Your task to perform on an android device: change text size in settings app Image 0: 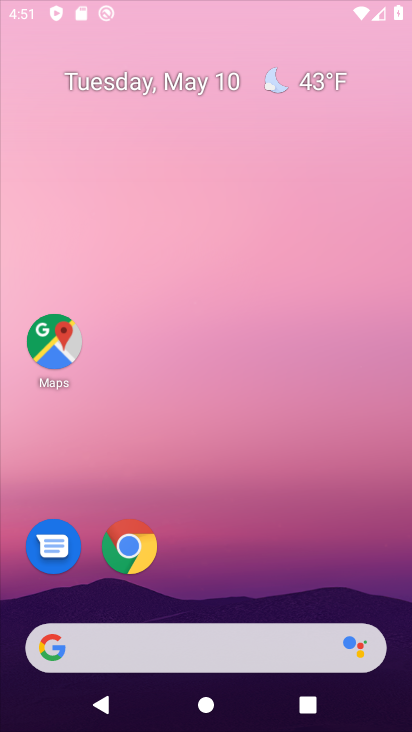
Step 0: click (153, 33)
Your task to perform on an android device: change text size in settings app Image 1: 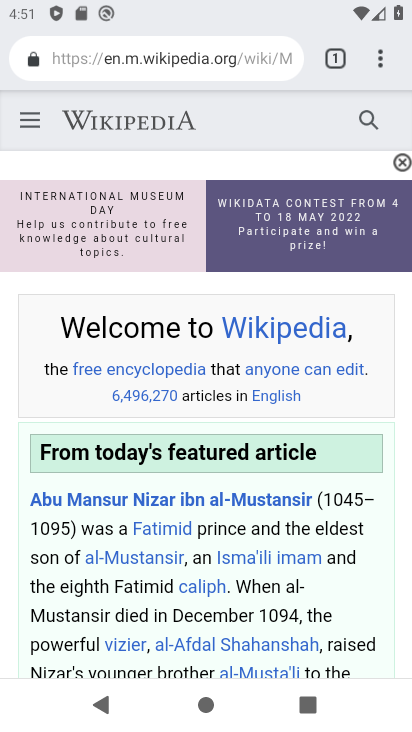
Step 1: press back button
Your task to perform on an android device: change text size in settings app Image 2: 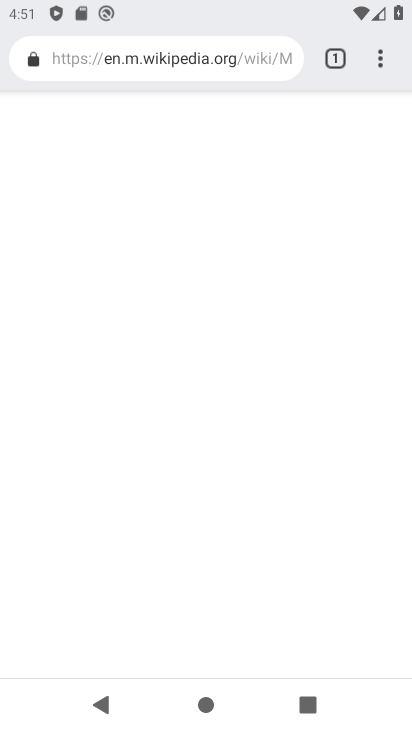
Step 2: press back button
Your task to perform on an android device: change text size in settings app Image 3: 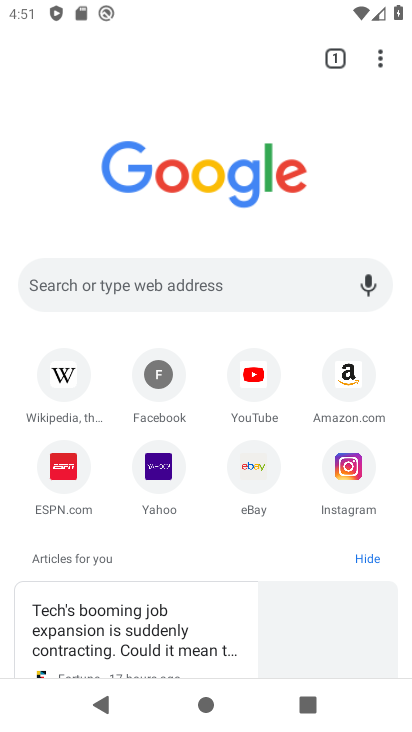
Step 3: press back button
Your task to perform on an android device: change text size in settings app Image 4: 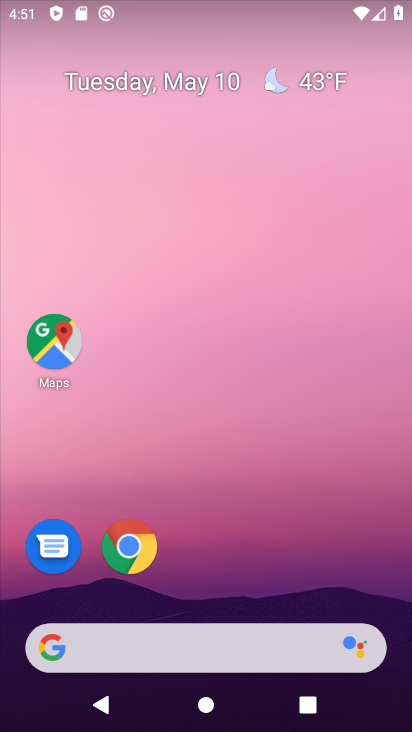
Step 4: drag from (247, 572) to (77, 182)
Your task to perform on an android device: change text size in settings app Image 5: 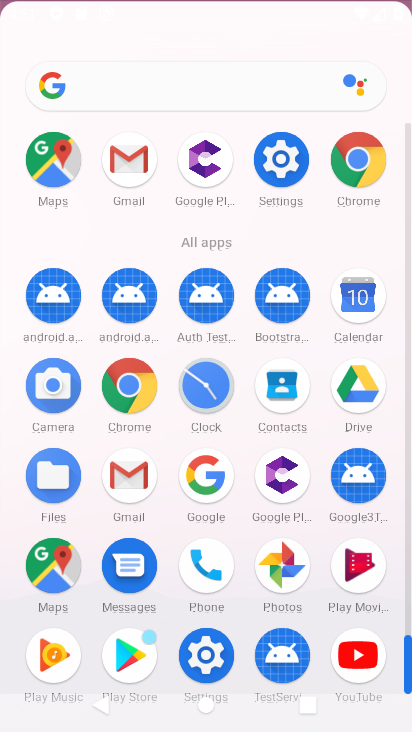
Step 5: drag from (299, 470) to (200, 35)
Your task to perform on an android device: change text size in settings app Image 6: 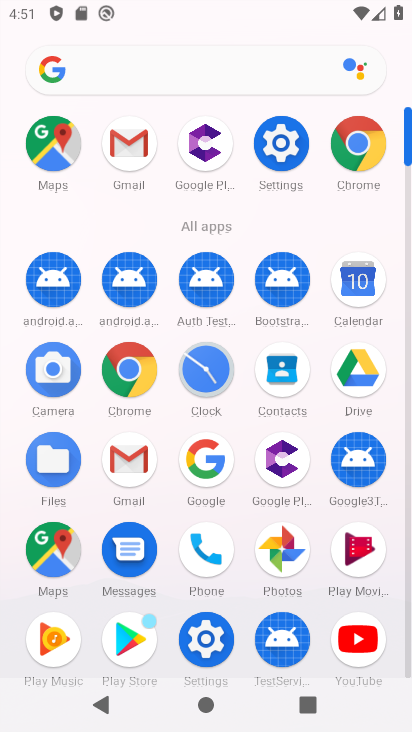
Step 6: click (287, 148)
Your task to perform on an android device: change text size in settings app Image 7: 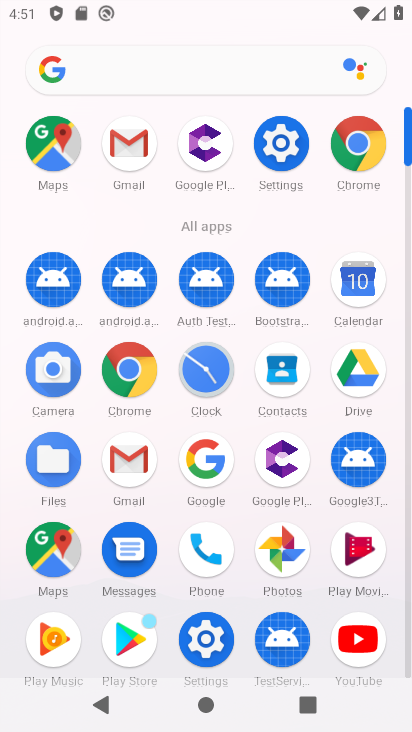
Step 7: click (287, 148)
Your task to perform on an android device: change text size in settings app Image 8: 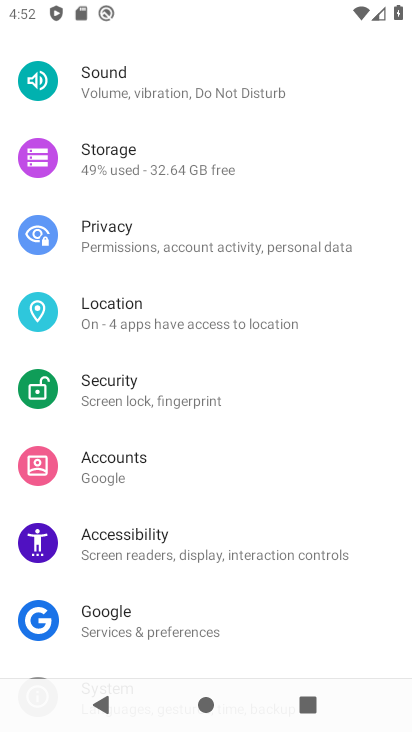
Step 8: drag from (131, 204) to (179, 507)
Your task to perform on an android device: change text size in settings app Image 9: 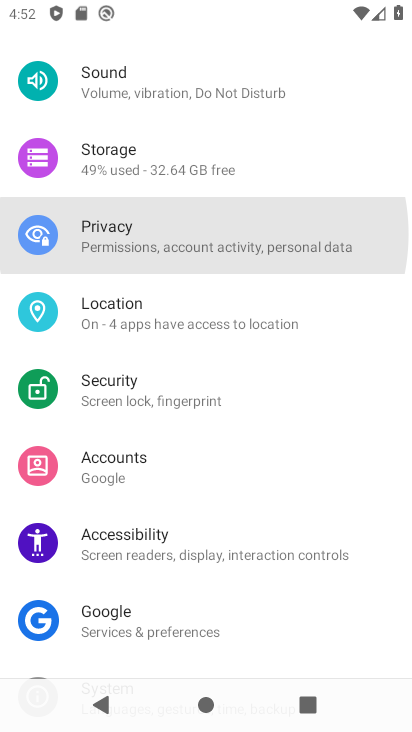
Step 9: drag from (162, 256) to (193, 457)
Your task to perform on an android device: change text size in settings app Image 10: 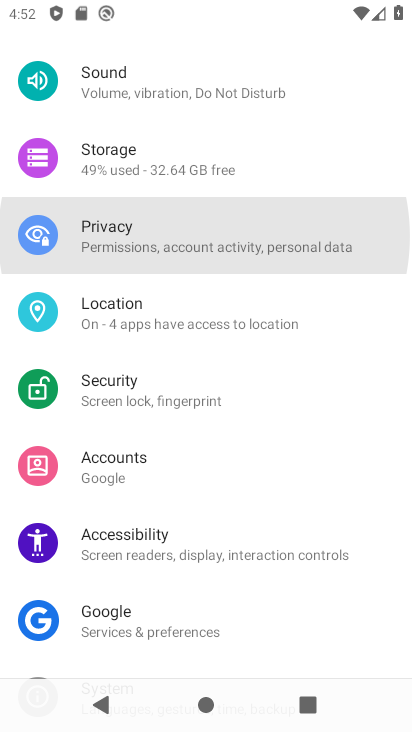
Step 10: drag from (134, 380) to (143, 438)
Your task to perform on an android device: change text size in settings app Image 11: 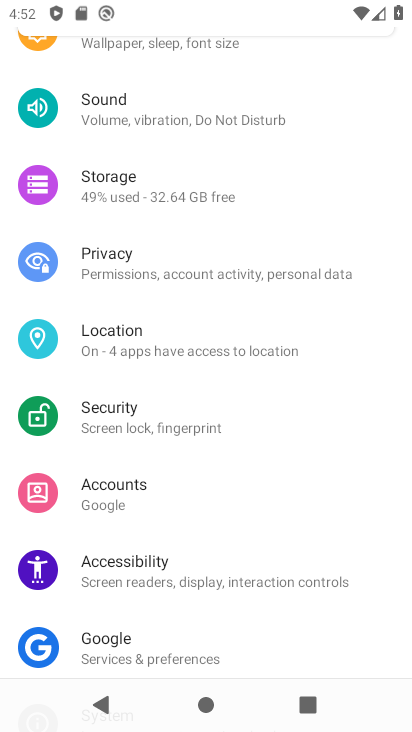
Step 11: drag from (150, 493) to (155, 164)
Your task to perform on an android device: change text size in settings app Image 12: 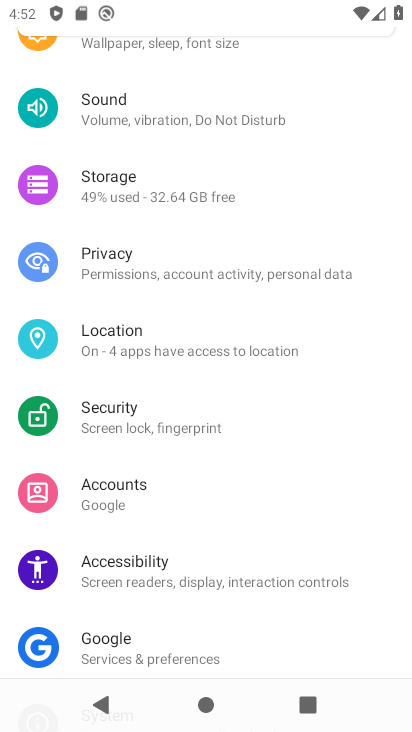
Step 12: drag from (139, 435) to (186, 126)
Your task to perform on an android device: change text size in settings app Image 13: 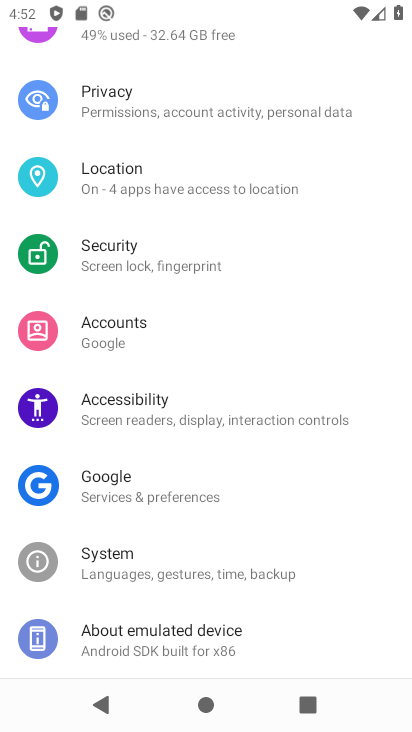
Step 13: drag from (150, 578) to (164, 646)
Your task to perform on an android device: change text size in settings app Image 14: 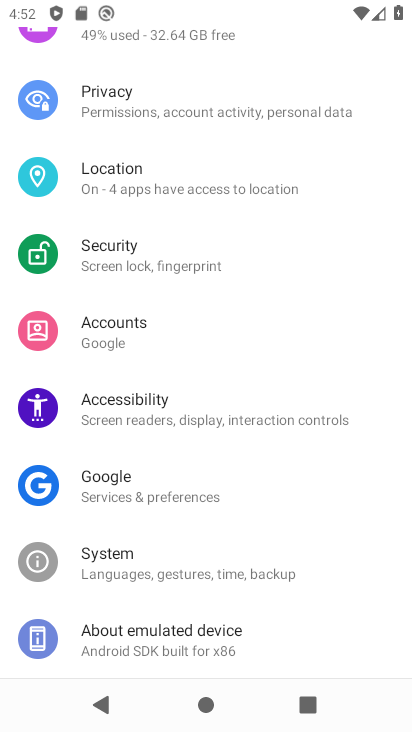
Step 14: drag from (111, 275) to (129, 586)
Your task to perform on an android device: change text size in settings app Image 15: 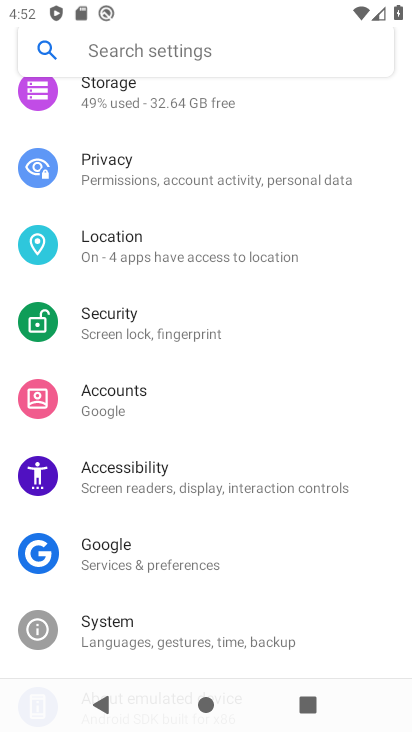
Step 15: drag from (58, 290) to (125, 637)
Your task to perform on an android device: change text size in settings app Image 16: 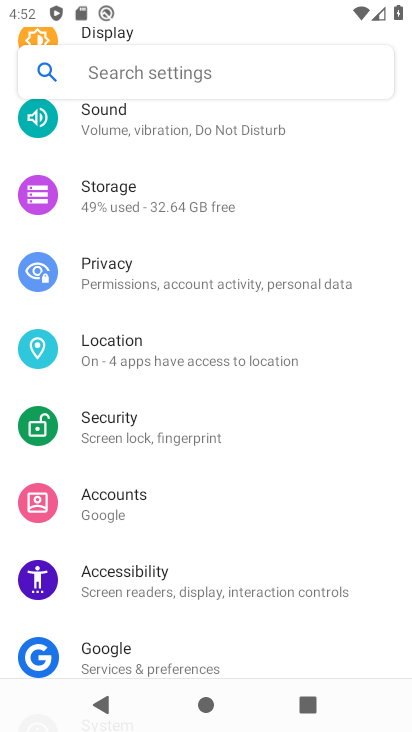
Step 16: drag from (133, 281) to (168, 525)
Your task to perform on an android device: change text size in settings app Image 17: 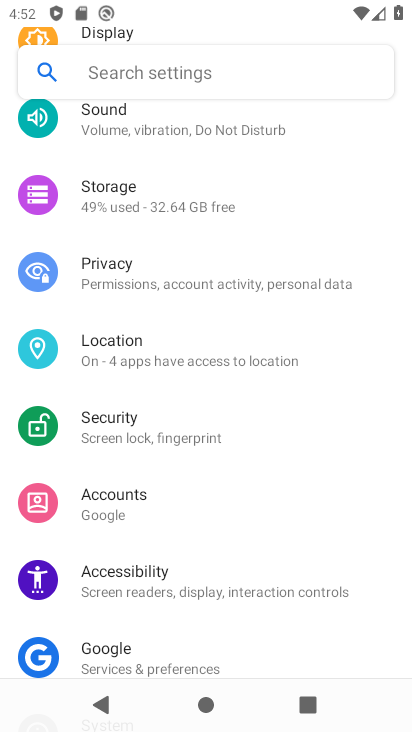
Step 17: drag from (175, 269) to (219, 529)
Your task to perform on an android device: change text size in settings app Image 18: 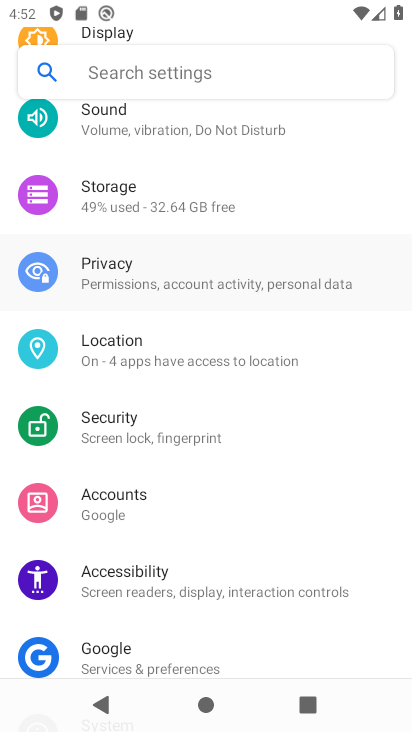
Step 18: drag from (217, 391) to (239, 537)
Your task to perform on an android device: change text size in settings app Image 19: 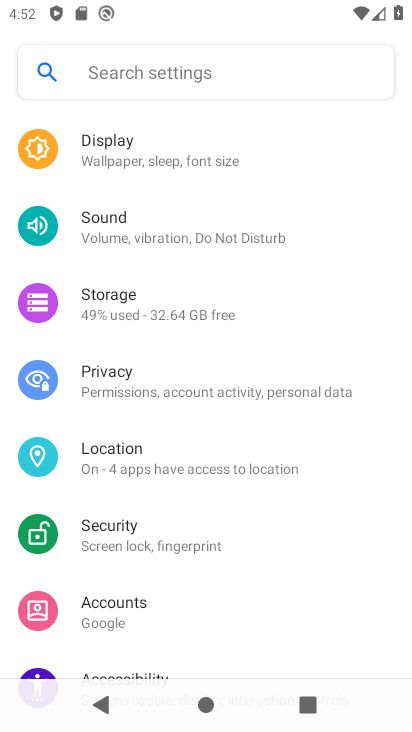
Step 19: click (132, 158)
Your task to perform on an android device: change text size in settings app Image 20: 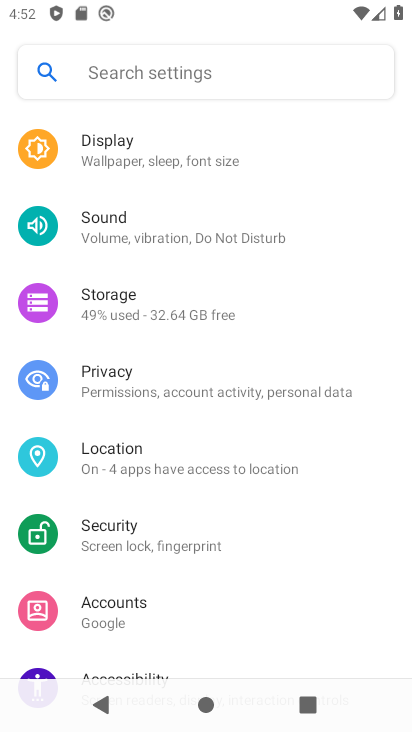
Step 20: click (131, 157)
Your task to perform on an android device: change text size in settings app Image 21: 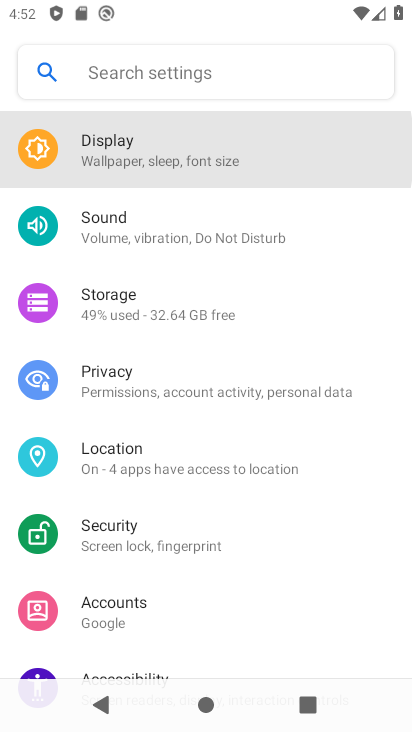
Step 21: click (131, 157)
Your task to perform on an android device: change text size in settings app Image 22: 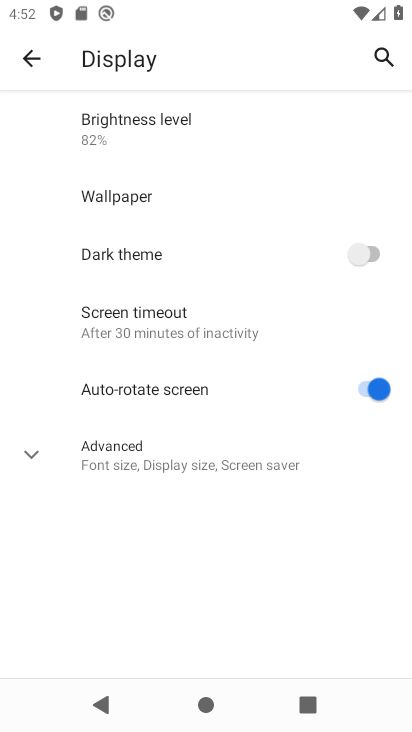
Step 22: click (133, 161)
Your task to perform on an android device: change text size in settings app Image 23: 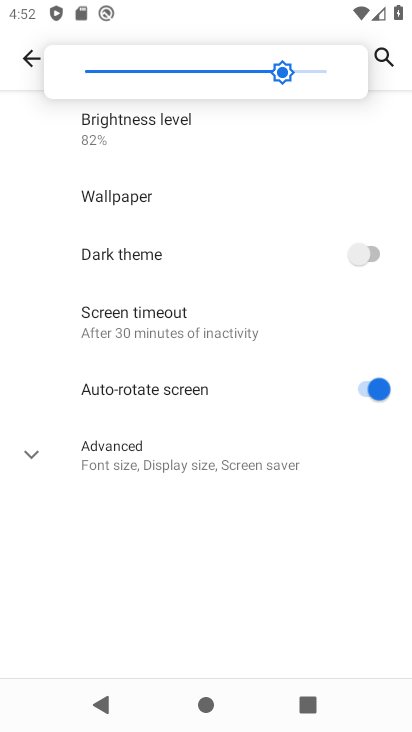
Step 23: click (138, 465)
Your task to perform on an android device: change text size in settings app Image 24: 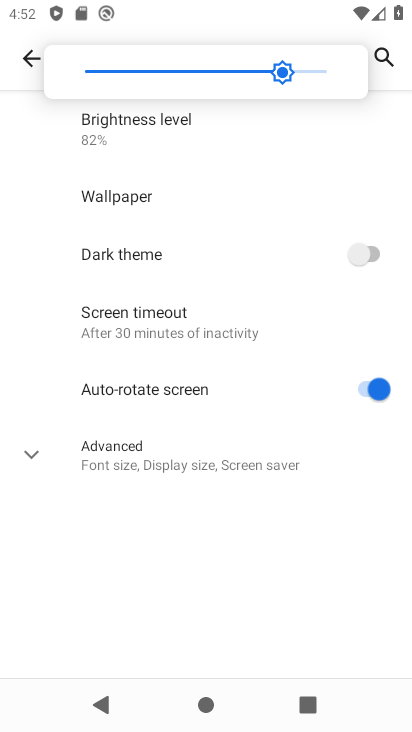
Step 24: click (138, 467)
Your task to perform on an android device: change text size in settings app Image 25: 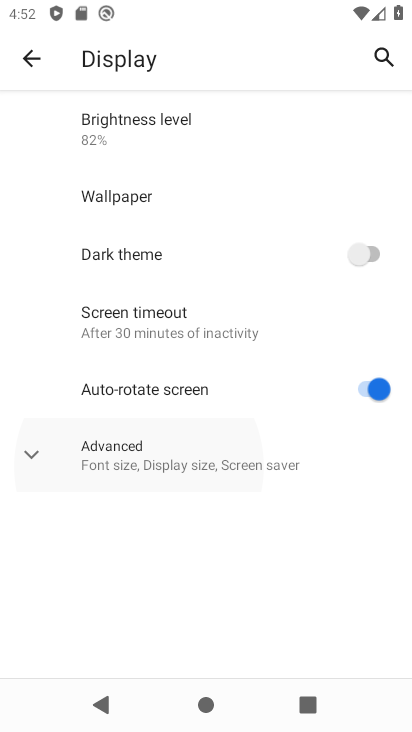
Step 25: click (138, 467)
Your task to perform on an android device: change text size in settings app Image 26: 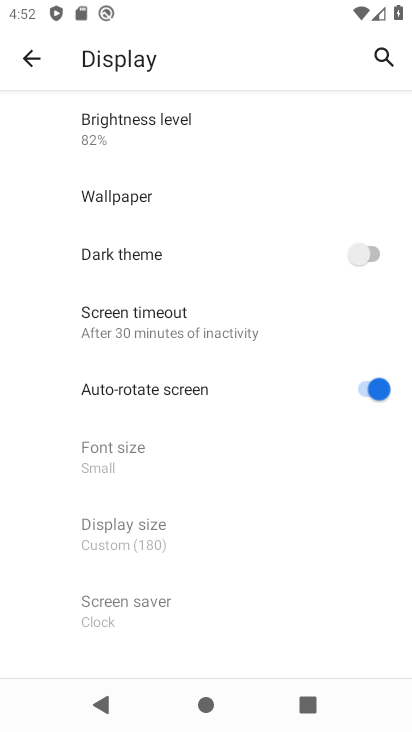
Step 26: click (139, 468)
Your task to perform on an android device: change text size in settings app Image 27: 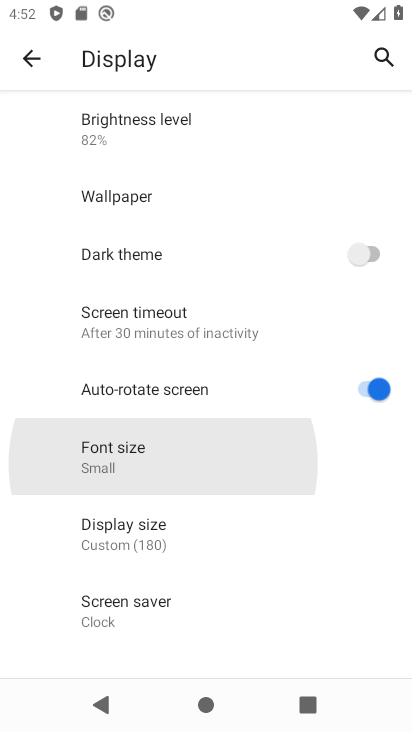
Step 27: click (143, 472)
Your task to perform on an android device: change text size in settings app Image 28: 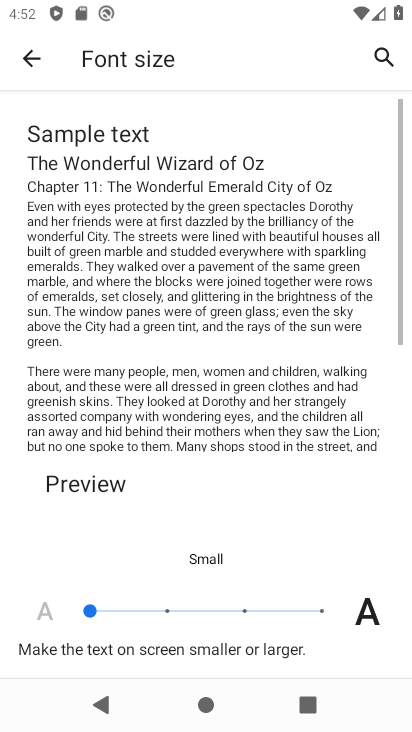
Step 28: click (104, 449)
Your task to perform on an android device: change text size in settings app Image 29: 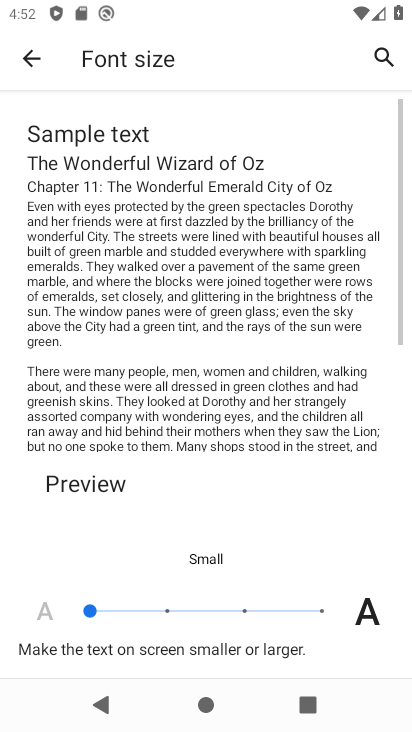
Step 29: click (104, 449)
Your task to perform on an android device: change text size in settings app Image 30: 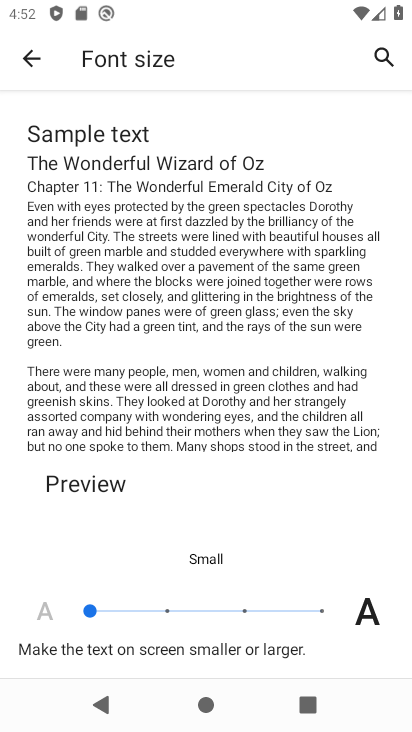
Step 30: click (163, 612)
Your task to perform on an android device: change text size in settings app Image 31: 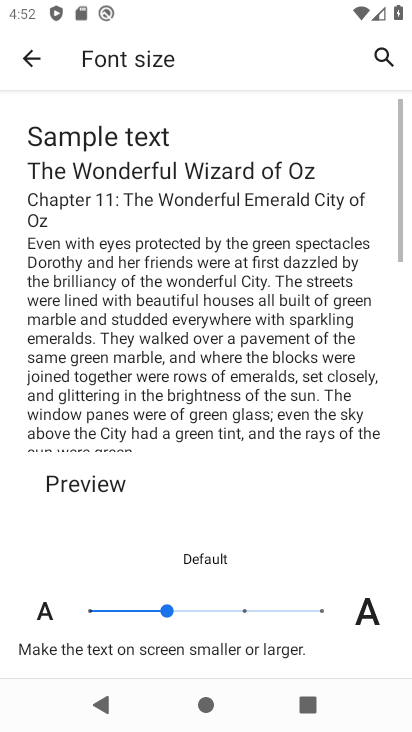
Step 31: click (162, 604)
Your task to perform on an android device: change text size in settings app Image 32: 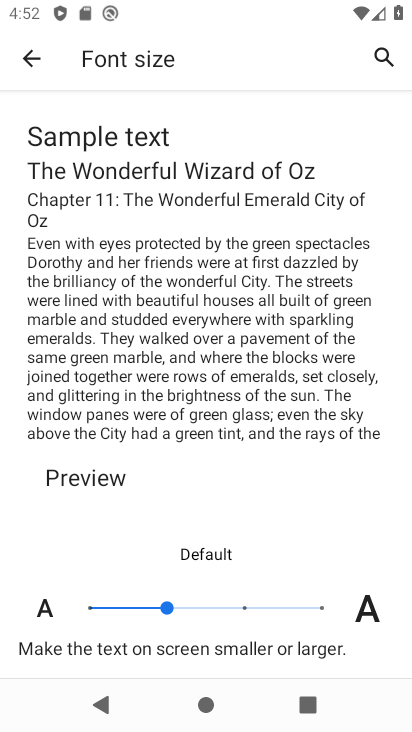
Step 32: task complete